Your task to perform on an android device: Search for Italian restaurants on Maps Image 0: 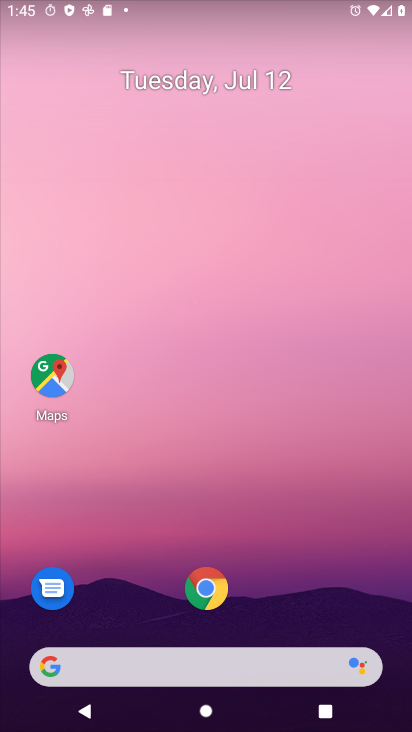
Step 0: click (55, 370)
Your task to perform on an android device: Search for Italian restaurants on Maps Image 1: 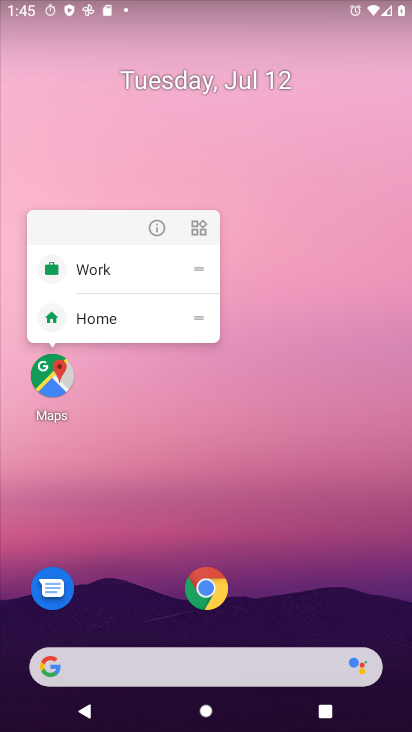
Step 1: click (49, 377)
Your task to perform on an android device: Search for Italian restaurants on Maps Image 2: 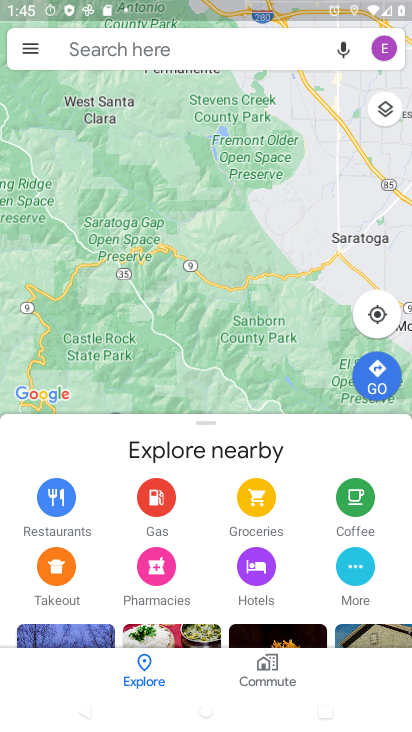
Step 2: click (190, 45)
Your task to perform on an android device: Search for Italian restaurants on Maps Image 3: 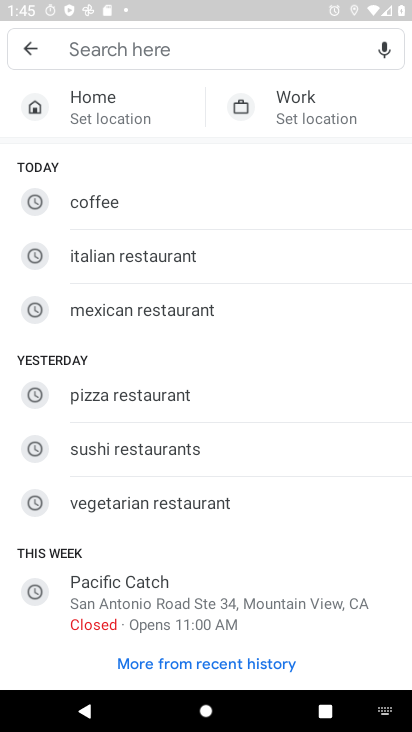
Step 3: click (131, 258)
Your task to perform on an android device: Search for Italian restaurants on Maps Image 4: 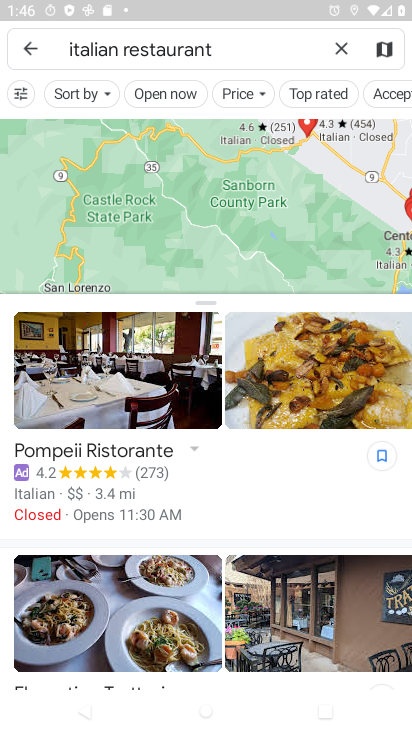
Step 4: task complete